Your task to perform on an android device: Go to ESPN.com Image 0: 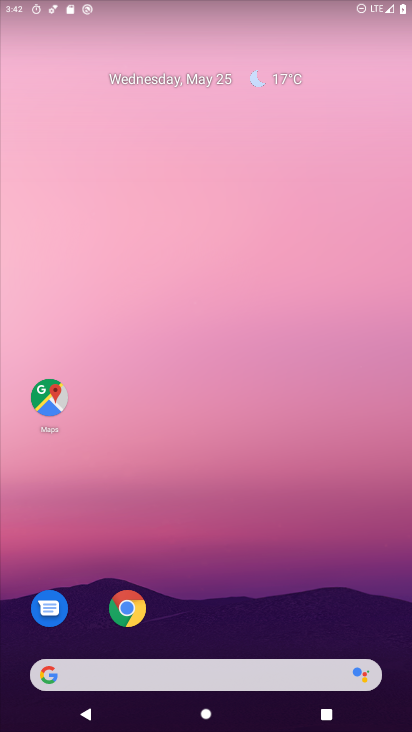
Step 0: click (130, 602)
Your task to perform on an android device: Go to ESPN.com Image 1: 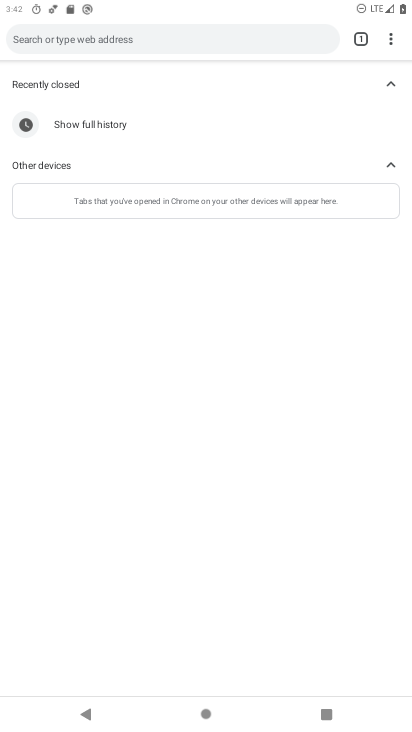
Step 1: click (199, 27)
Your task to perform on an android device: Go to ESPN.com Image 2: 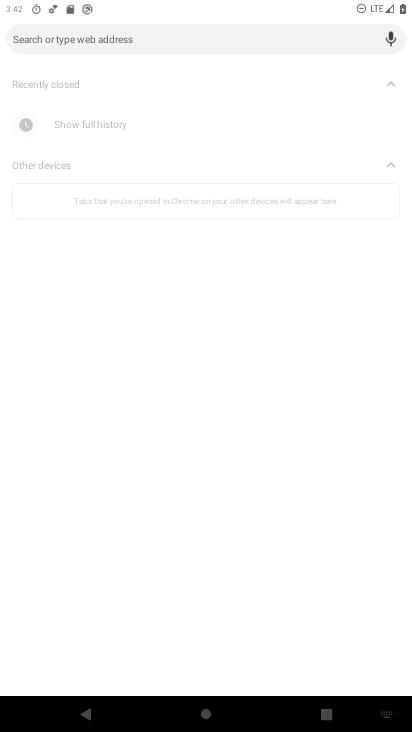
Step 2: type "espn.com"
Your task to perform on an android device: Go to ESPN.com Image 3: 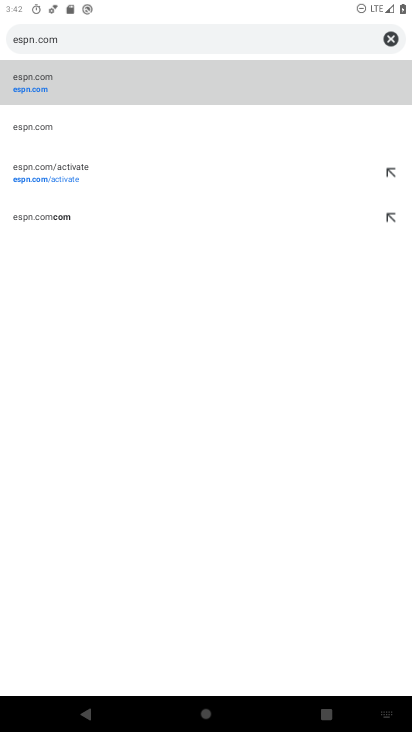
Step 3: click (31, 88)
Your task to perform on an android device: Go to ESPN.com Image 4: 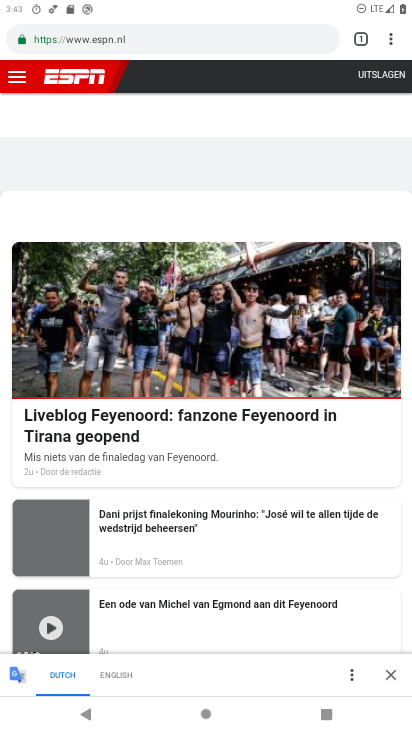
Step 4: task complete